Your task to perform on an android device: move a message to another label in the gmail app Image 0: 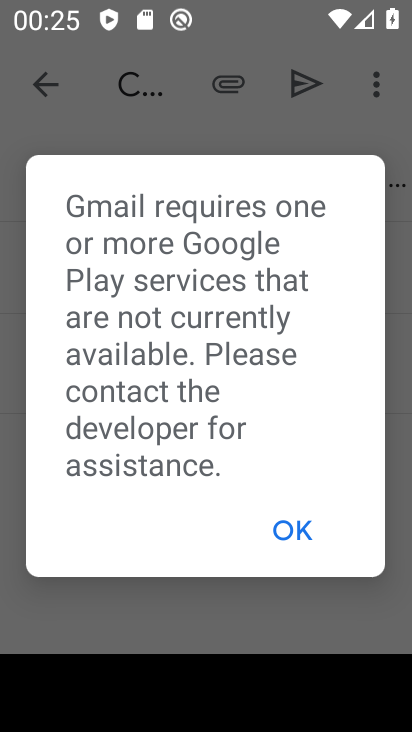
Step 0: press home button
Your task to perform on an android device: move a message to another label in the gmail app Image 1: 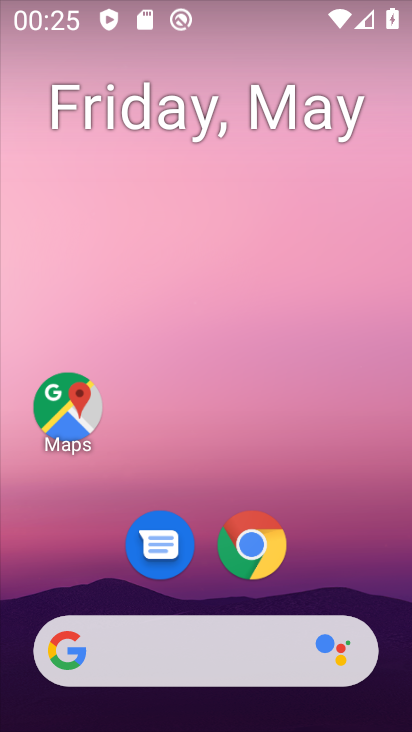
Step 1: drag from (309, 424) to (281, 19)
Your task to perform on an android device: move a message to another label in the gmail app Image 2: 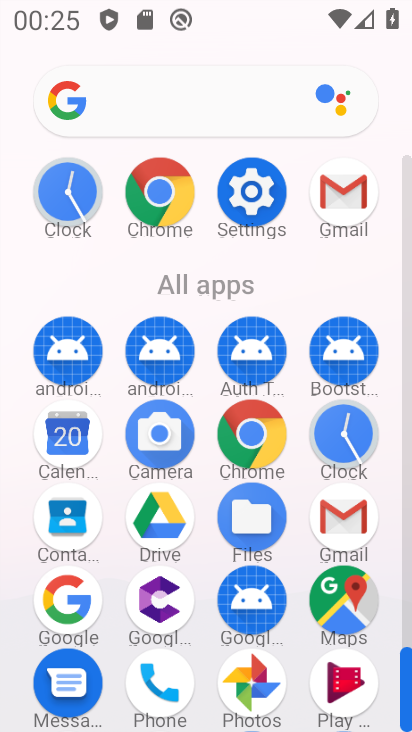
Step 2: click (330, 207)
Your task to perform on an android device: move a message to another label in the gmail app Image 3: 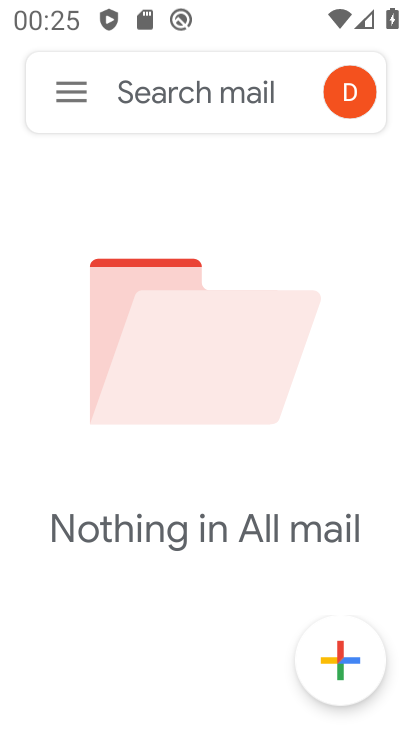
Step 3: click (63, 101)
Your task to perform on an android device: move a message to another label in the gmail app Image 4: 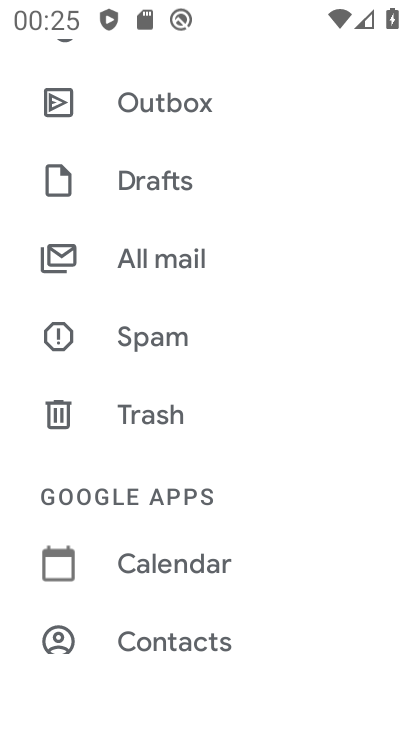
Step 4: task complete